Your task to perform on an android device: add a contact in the contacts app Image 0: 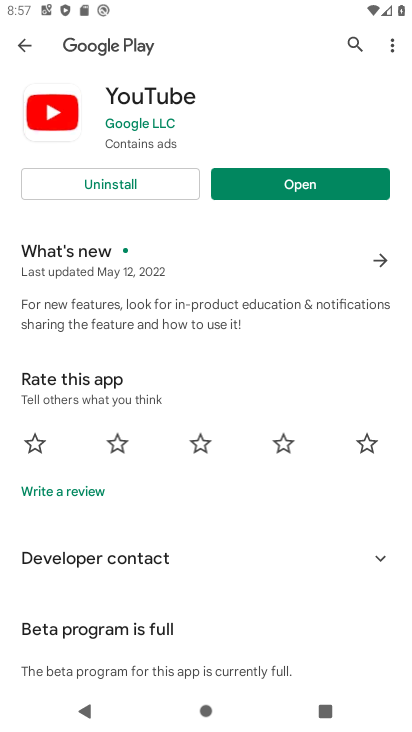
Step 0: press home button
Your task to perform on an android device: add a contact in the contacts app Image 1: 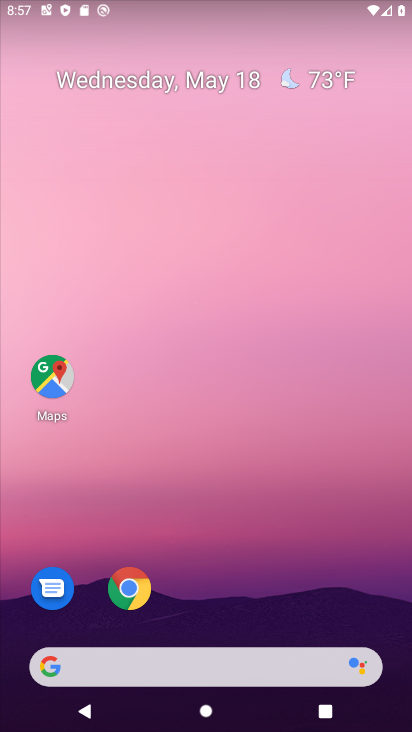
Step 1: drag from (388, 618) to (340, 200)
Your task to perform on an android device: add a contact in the contacts app Image 2: 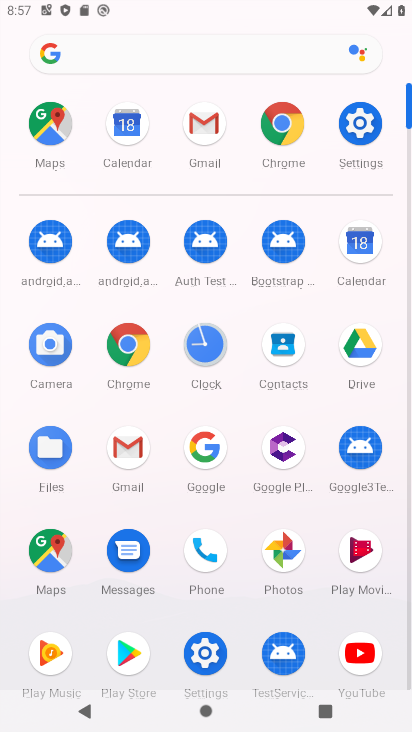
Step 2: click (288, 361)
Your task to perform on an android device: add a contact in the contacts app Image 3: 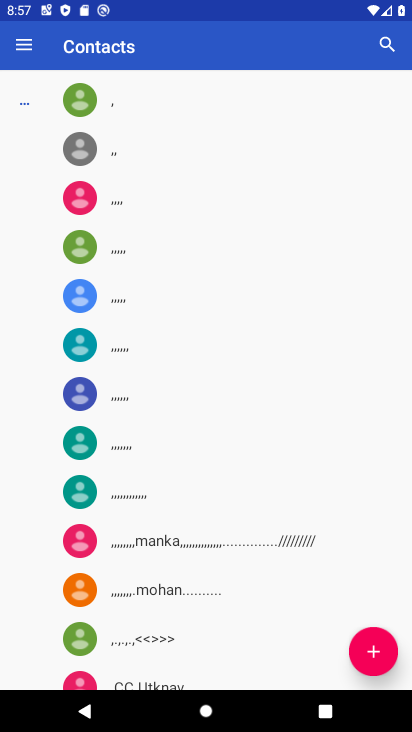
Step 3: click (383, 656)
Your task to perform on an android device: add a contact in the contacts app Image 4: 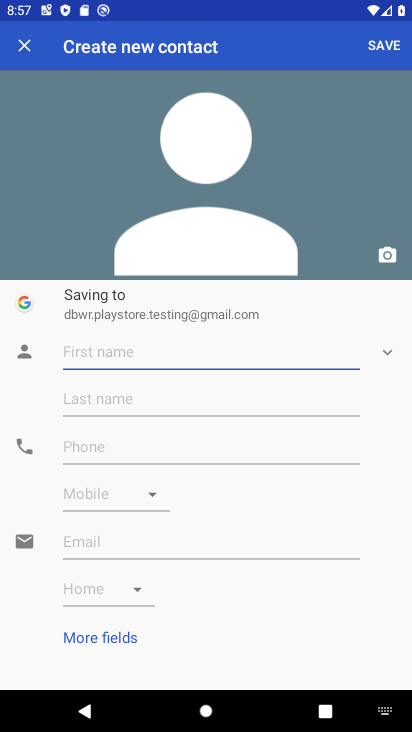
Step 4: click (285, 351)
Your task to perform on an android device: add a contact in the contacts app Image 5: 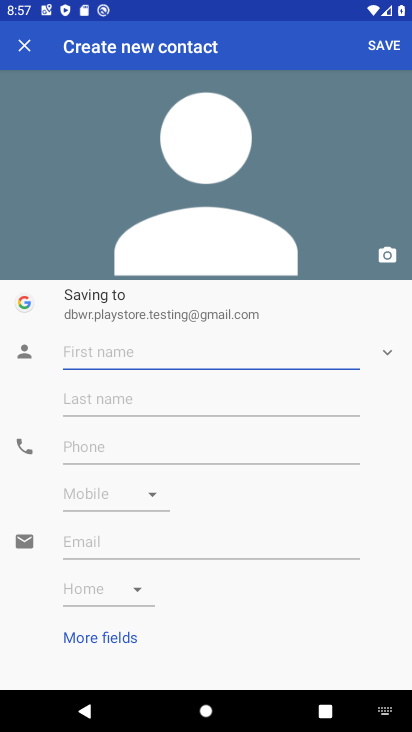
Step 5: type "sanu"
Your task to perform on an android device: add a contact in the contacts app Image 6: 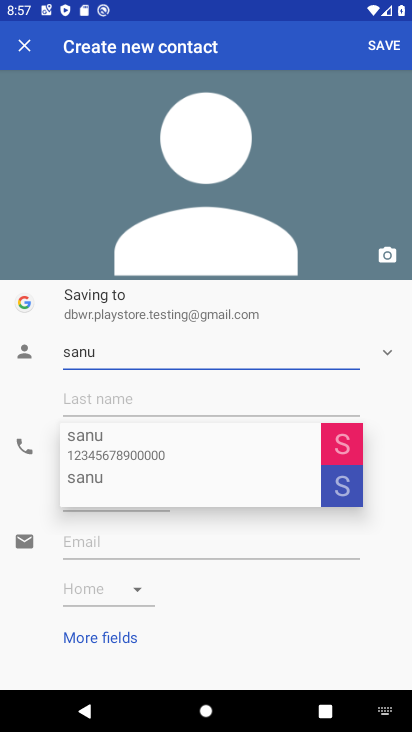
Step 6: click (391, 483)
Your task to perform on an android device: add a contact in the contacts app Image 7: 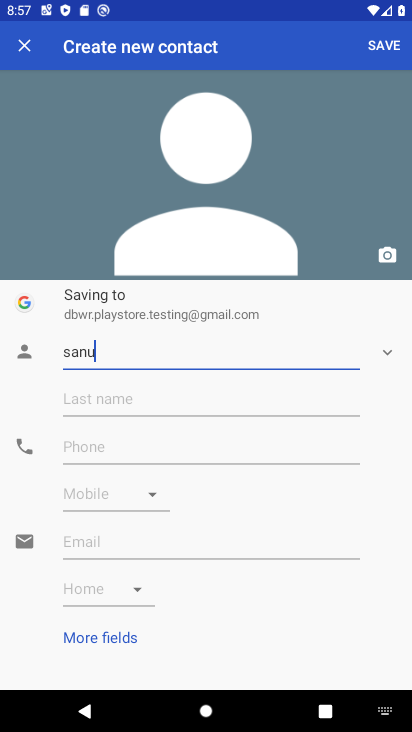
Step 7: click (215, 452)
Your task to perform on an android device: add a contact in the contacts app Image 8: 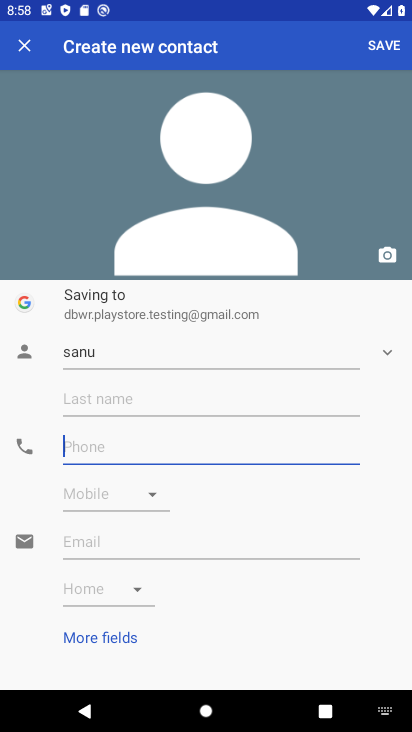
Step 8: type "9203034807"
Your task to perform on an android device: add a contact in the contacts app Image 9: 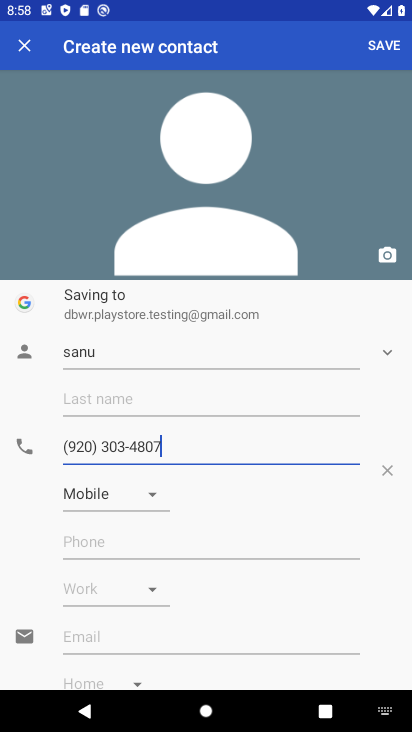
Step 9: click (380, 55)
Your task to perform on an android device: add a contact in the contacts app Image 10: 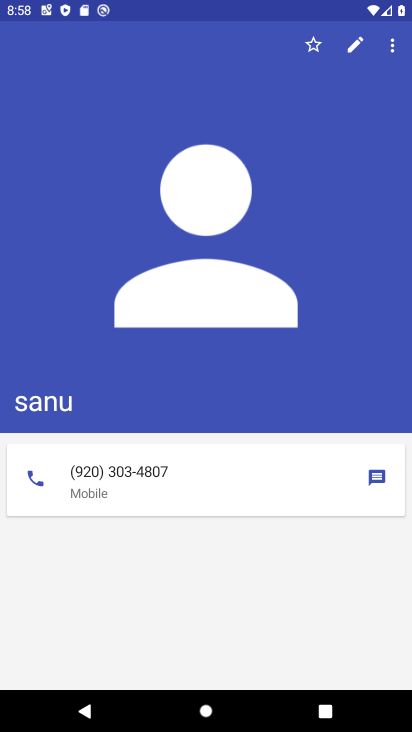
Step 10: task complete